Your task to perform on an android device: find photos in the google photos app Image 0: 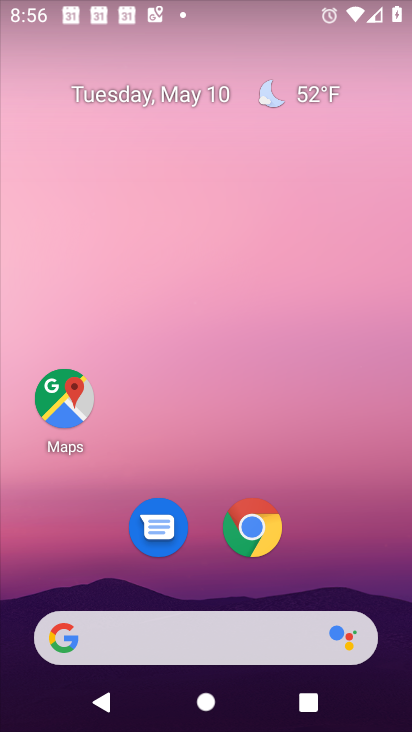
Step 0: click (186, 236)
Your task to perform on an android device: find photos in the google photos app Image 1: 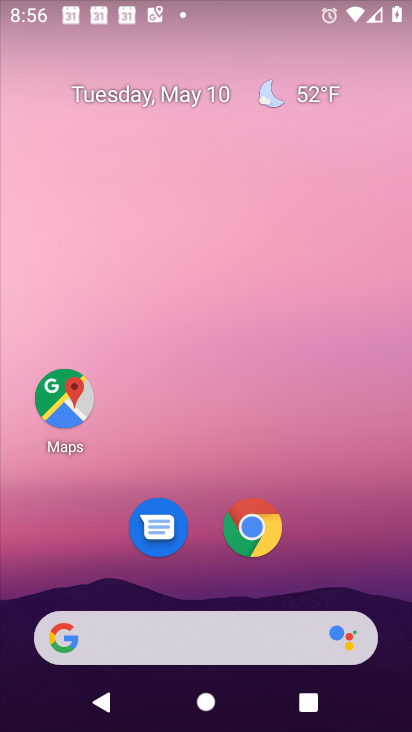
Step 1: drag from (331, 557) to (181, 128)
Your task to perform on an android device: find photos in the google photos app Image 2: 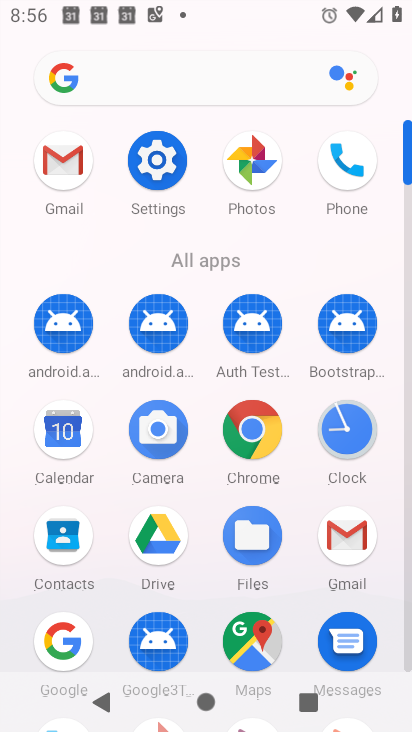
Step 2: click (257, 177)
Your task to perform on an android device: find photos in the google photos app Image 3: 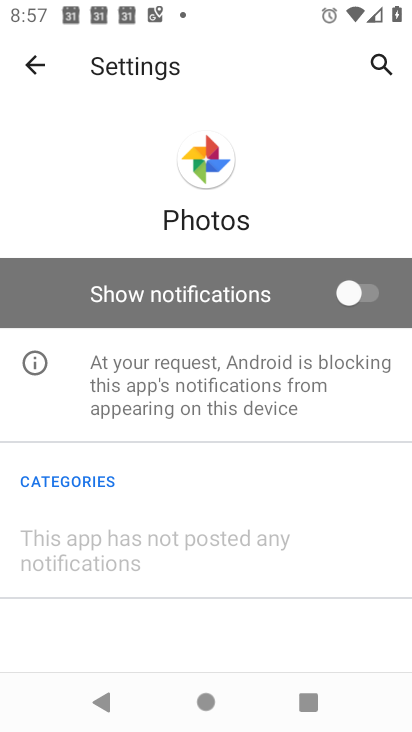
Step 3: press back button
Your task to perform on an android device: find photos in the google photos app Image 4: 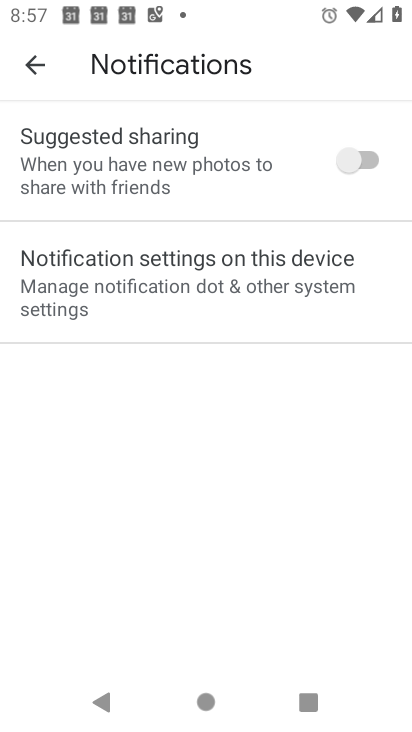
Step 4: press back button
Your task to perform on an android device: find photos in the google photos app Image 5: 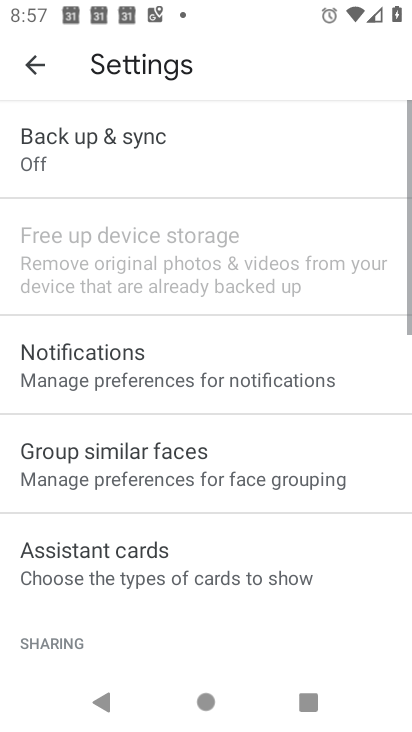
Step 5: press back button
Your task to perform on an android device: find photos in the google photos app Image 6: 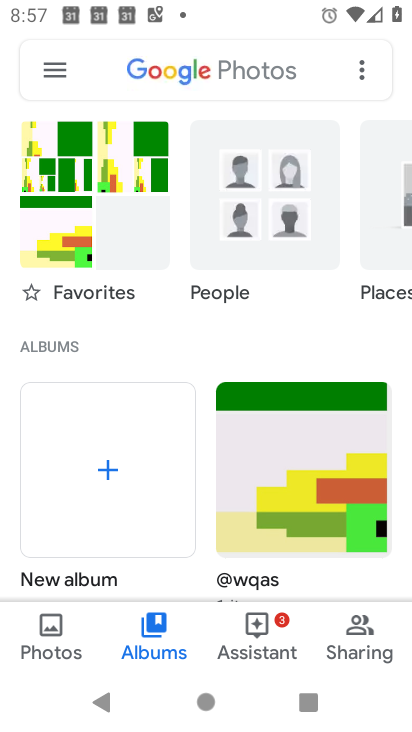
Step 6: click (54, 639)
Your task to perform on an android device: find photos in the google photos app Image 7: 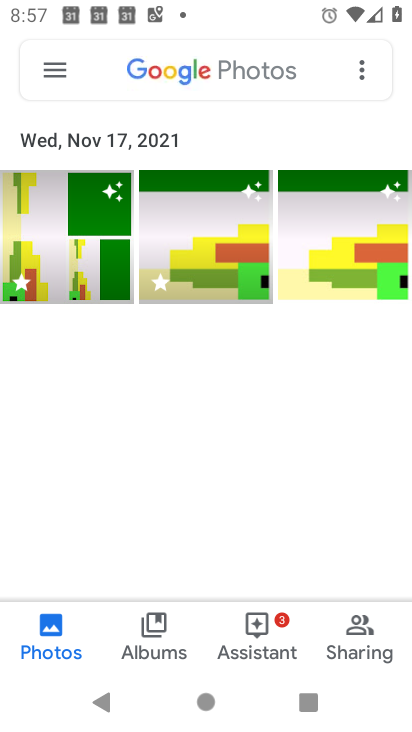
Step 7: task complete